Your task to perform on an android device: turn smart compose on in the gmail app Image 0: 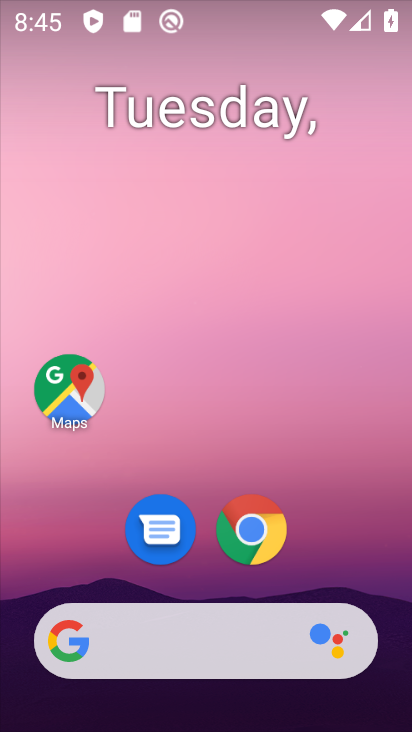
Step 0: drag from (377, 608) to (395, 102)
Your task to perform on an android device: turn smart compose on in the gmail app Image 1: 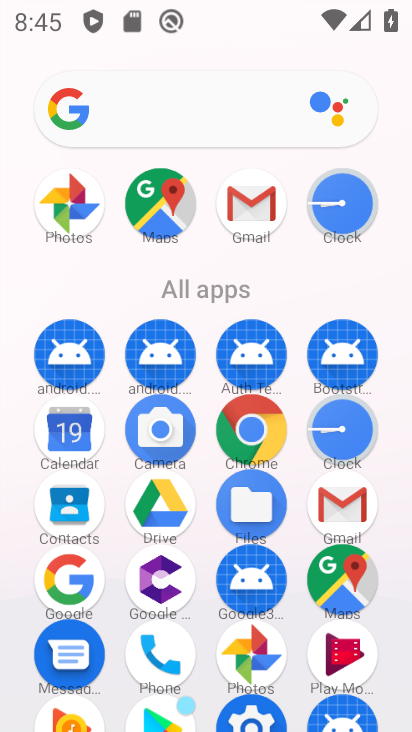
Step 1: click (345, 516)
Your task to perform on an android device: turn smart compose on in the gmail app Image 2: 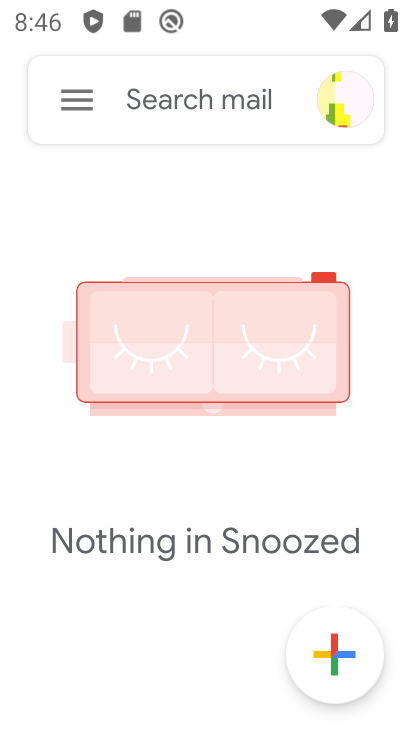
Step 2: click (67, 100)
Your task to perform on an android device: turn smart compose on in the gmail app Image 3: 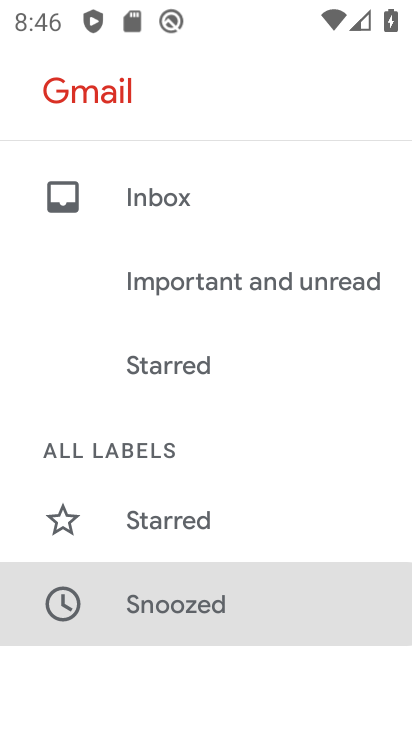
Step 3: drag from (227, 642) to (205, 111)
Your task to perform on an android device: turn smart compose on in the gmail app Image 4: 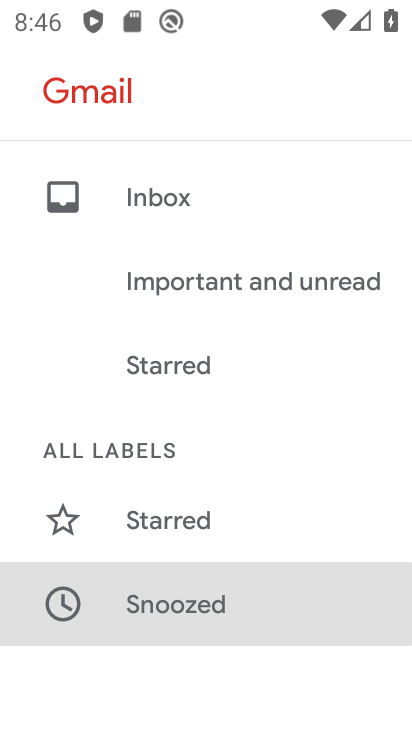
Step 4: drag from (290, 318) to (295, 608)
Your task to perform on an android device: turn smart compose on in the gmail app Image 5: 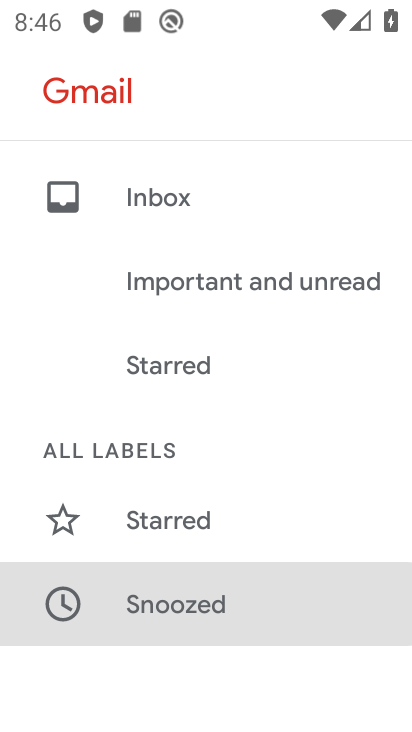
Step 5: drag from (194, 428) to (228, 53)
Your task to perform on an android device: turn smart compose on in the gmail app Image 6: 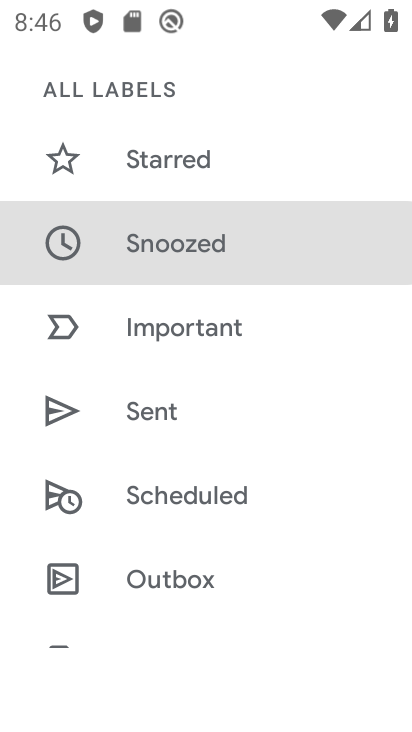
Step 6: press back button
Your task to perform on an android device: turn smart compose on in the gmail app Image 7: 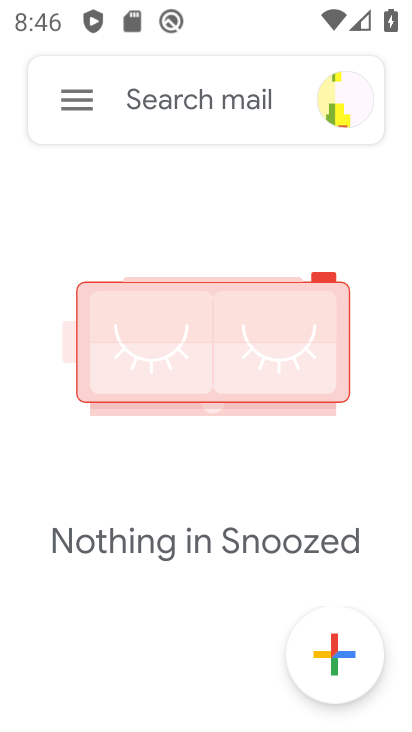
Step 7: click (69, 105)
Your task to perform on an android device: turn smart compose on in the gmail app Image 8: 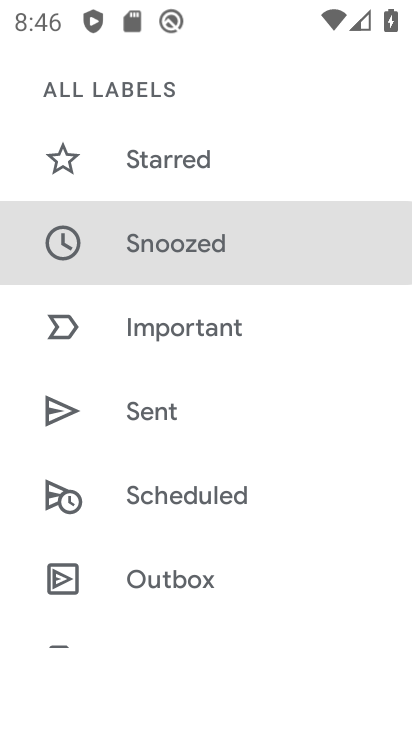
Step 8: drag from (199, 581) to (233, 144)
Your task to perform on an android device: turn smart compose on in the gmail app Image 9: 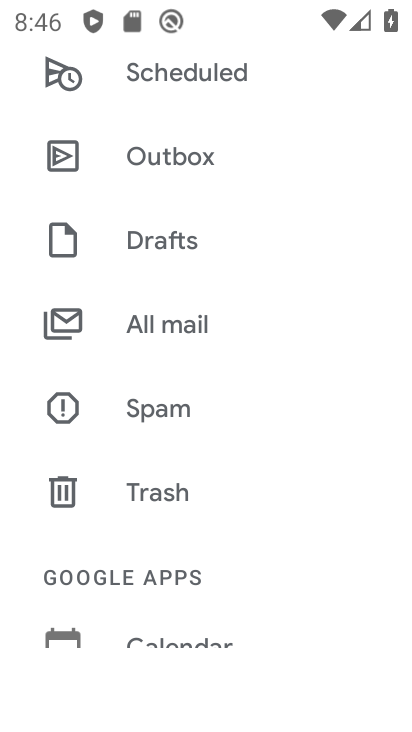
Step 9: drag from (263, 594) to (261, 146)
Your task to perform on an android device: turn smart compose on in the gmail app Image 10: 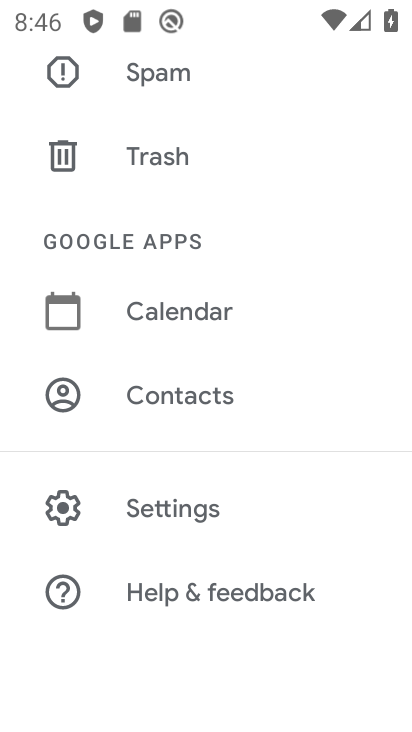
Step 10: click (224, 504)
Your task to perform on an android device: turn smart compose on in the gmail app Image 11: 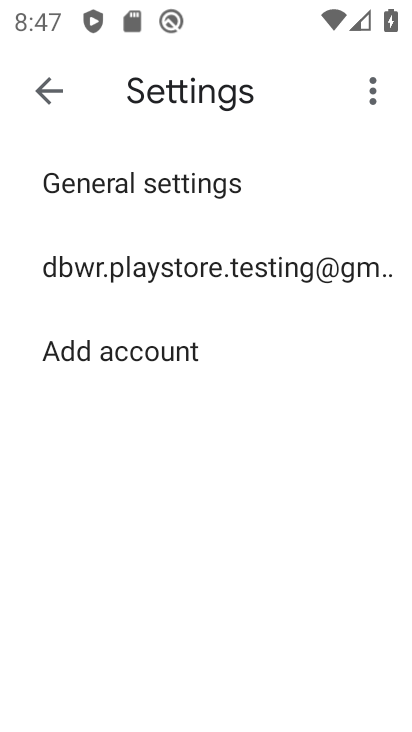
Step 11: click (273, 267)
Your task to perform on an android device: turn smart compose on in the gmail app Image 12: 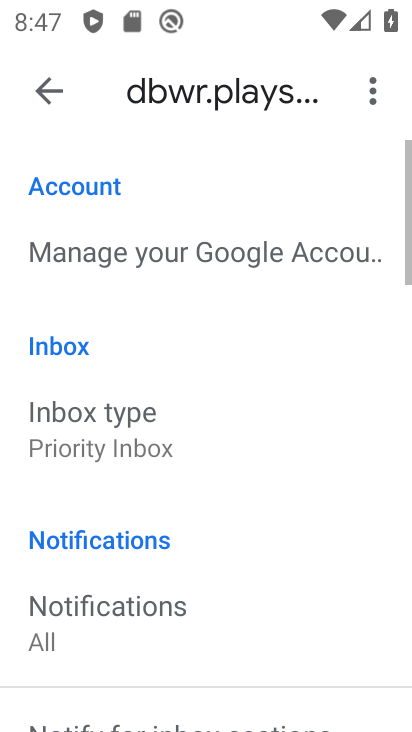
Step 12: drag from (128, 589) to (149, 176)
Your task to perform on an android device: turn smart compose on in the gmail app Image 13: 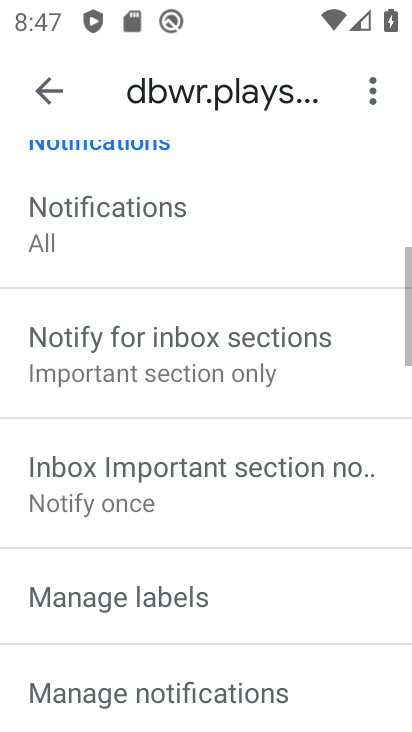
Step 13: drag from (199, 592) to (243, 244)
Your task to perform on an android device: turn smart compose on in the gmail app Image 14: 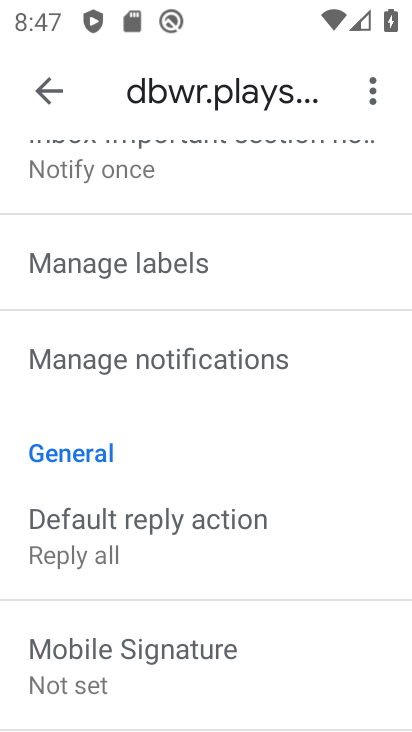
Step 14: drag from (194, 606) to (254, 186)
Your task to perform on an android device: turn smart compose on in the gmail app Image 15: 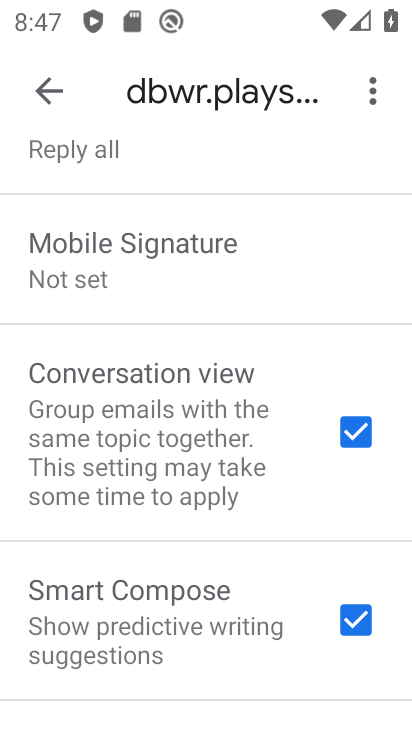
Step 15: drag from (244, 271) to (242, 591)
Your task to perform on an android device: turn smart compose on in the gmail app Image 16: 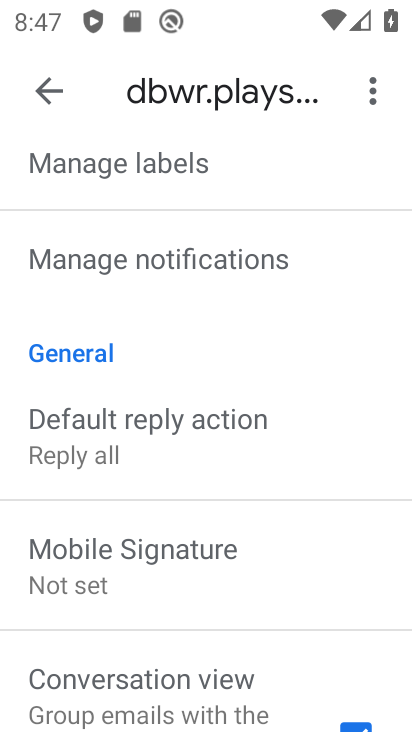
Step 16: drag from (341, 625) to (354, 183)
Your task to perform on an android device: turn smart compose on in the gmail app Image 17: 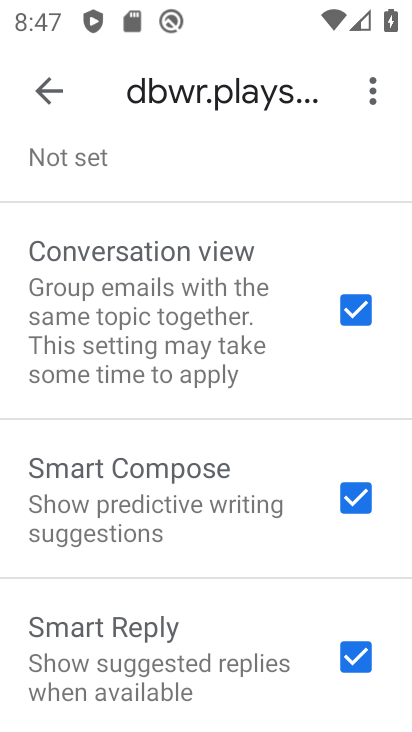
Step 17: click (352, 502)
Your task to perform on an android device: turn smart compose on in the gmail app Image 18: 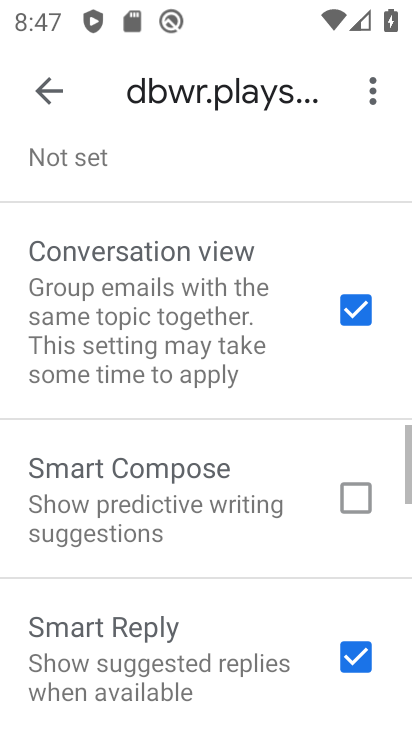
Step 18: click (344, 499)
Your task to perform on an android device: turn smart compose on in the gmail app Image 19: 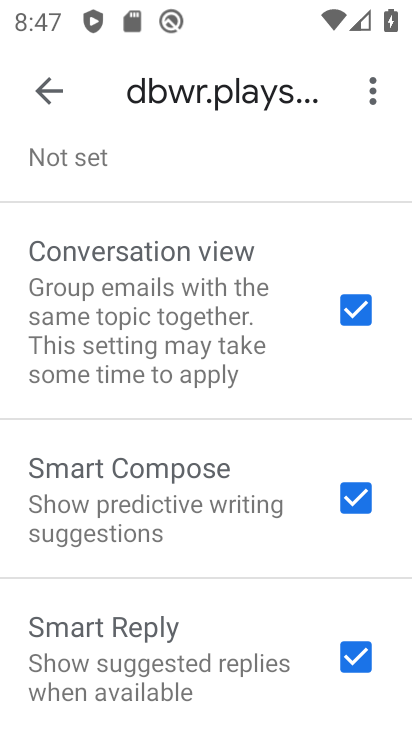
Step 19: task complete